Your task to perform on an android device: turn off airplane mode Image 0: 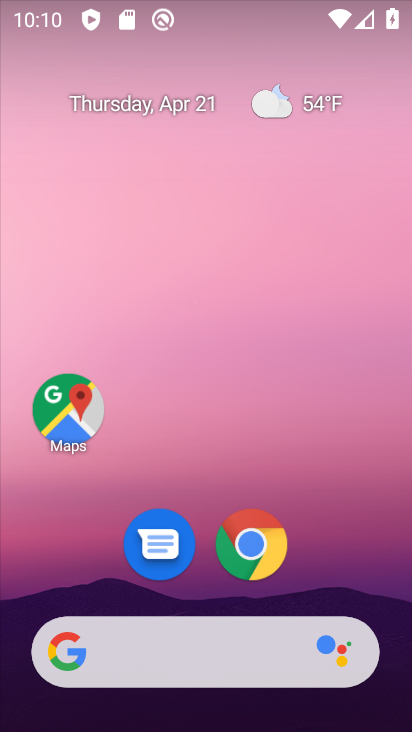
Step 0: drag from (5, 658) to (374, 93)
Your task to perform on an android device: turn off airplane mode Image 1: 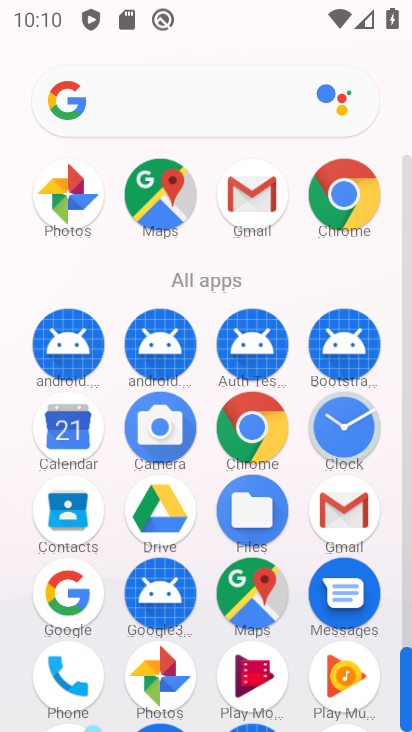
Step 1: drag from (86, 653) to (383, 256)
Your task to perform on an android device: turn off airplane mode Image 2: 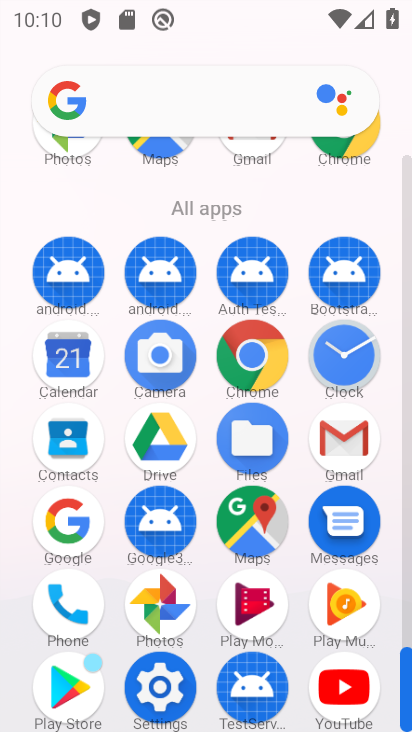
Step 2: click (133, 664)
Your task to perform on an android device: turn off airplane mode Image 3: 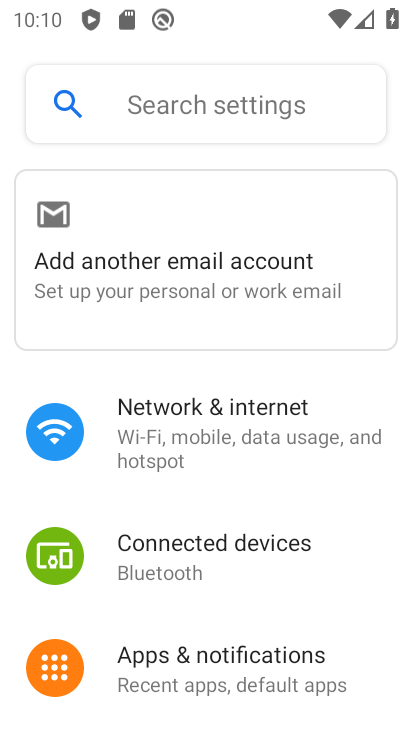
Step 3: click (217, 423)
Your task to perform on an android device: turn off airplane mode Image 4: 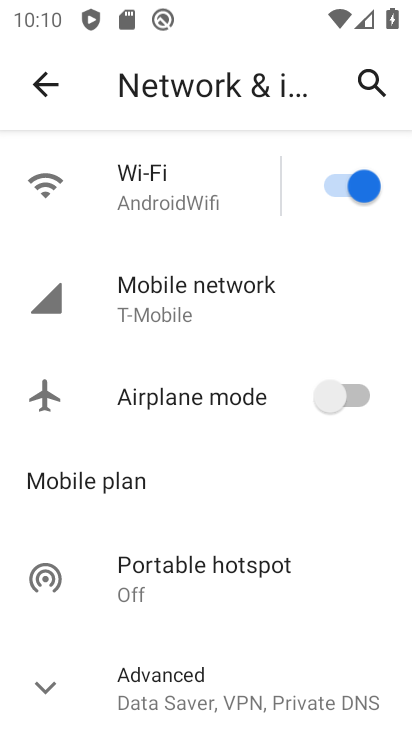
Step 4: task complete